Your task to perform on an android device: Go to Google Image 0: 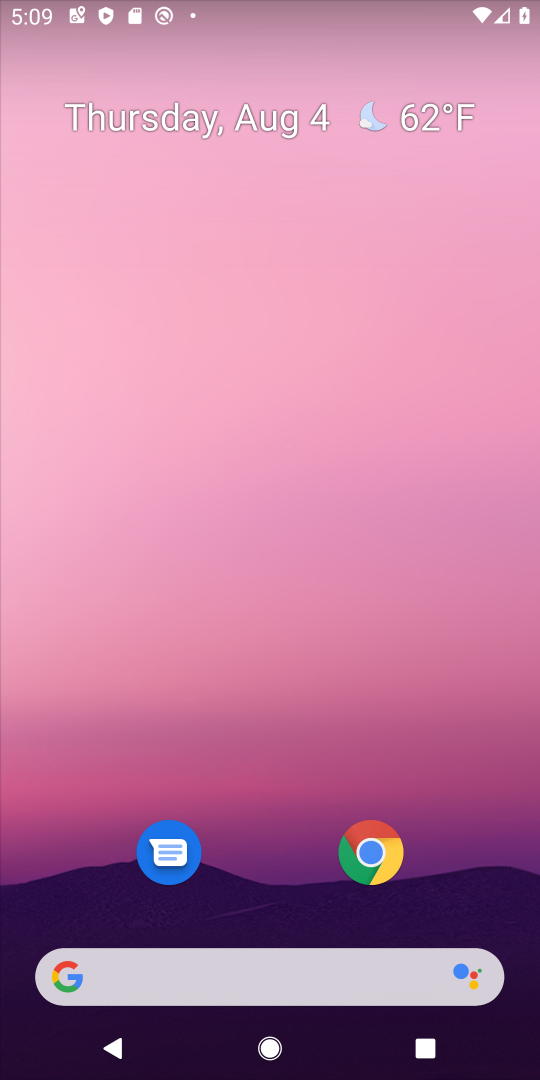
Step 0: drag from (293, 921) to (296, 44)
Your task to perform on an android device: Go to Google Image 1: 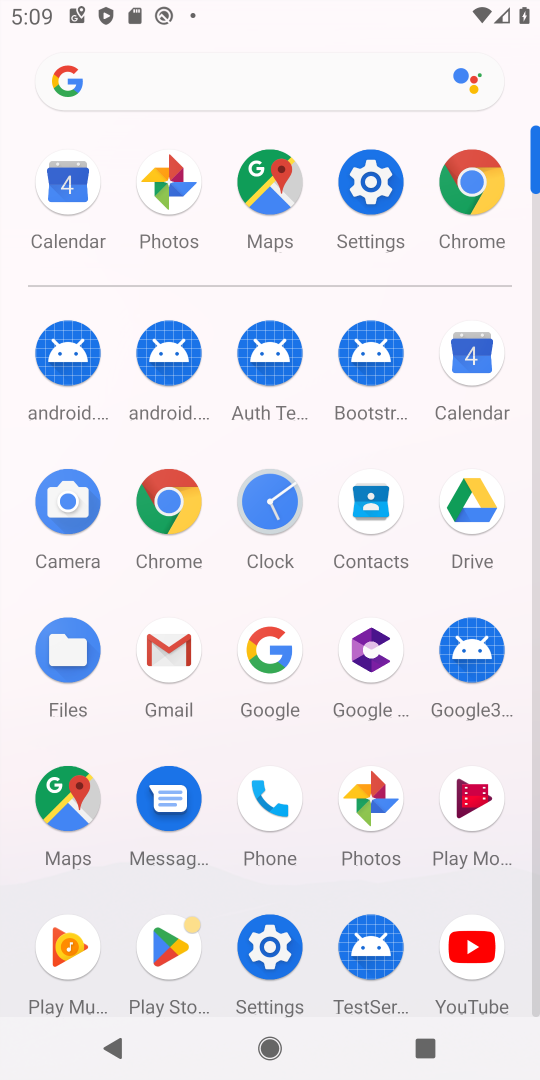
Step 1: click (279, 645)
Your task to perform on an android device: Go to Google Image 2: 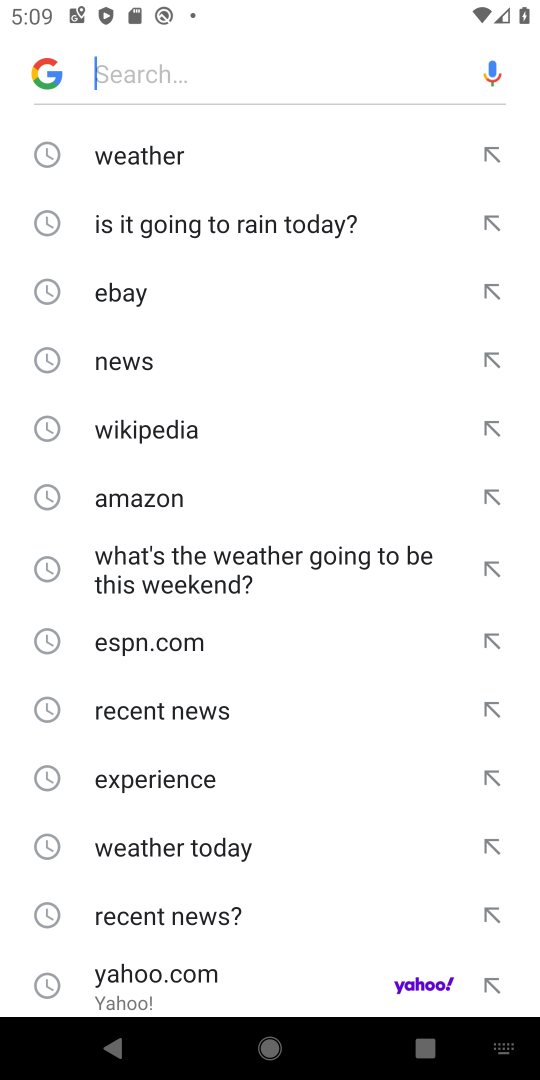
Step 2: task complete